Your task to perform on an android device: Go to Yahoo.com Image 0: 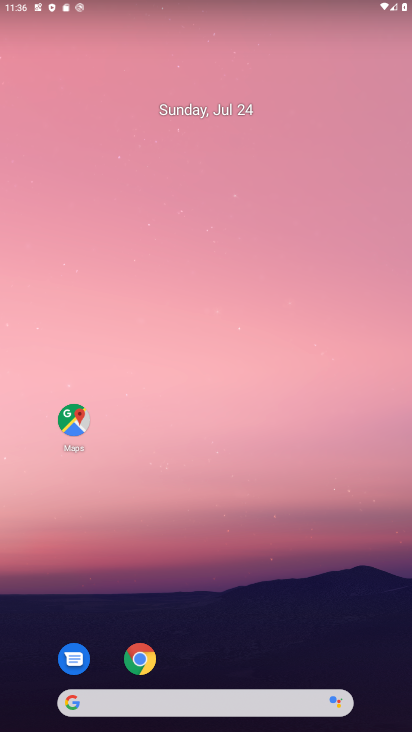
Step 0: click (121, 701)
Your task to perform on an android device: Go to Yahoo.com Image 1: 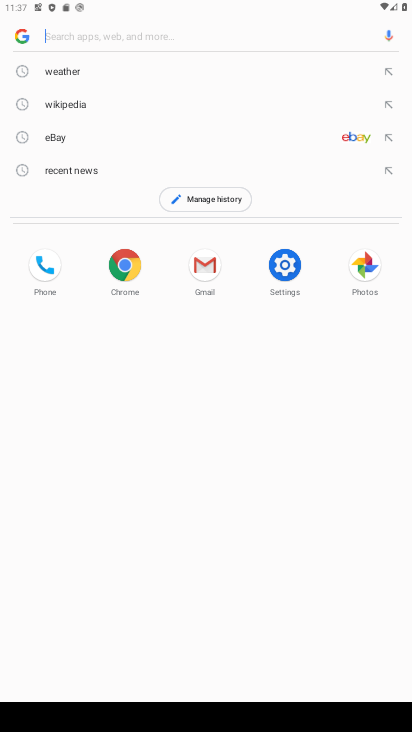
Step 1: type " Yahoo.com"
Your task to perform on an android device: Go to Yahoo.com Image 2: 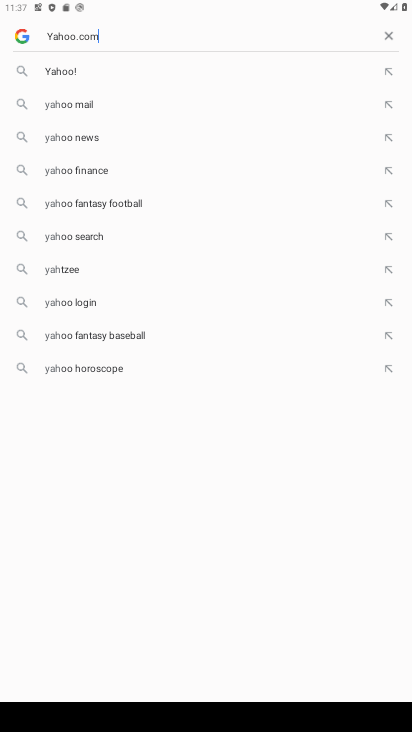
Step 2: type ""
Your task to perform on an android device: Go to Yahoo.com Image 3: 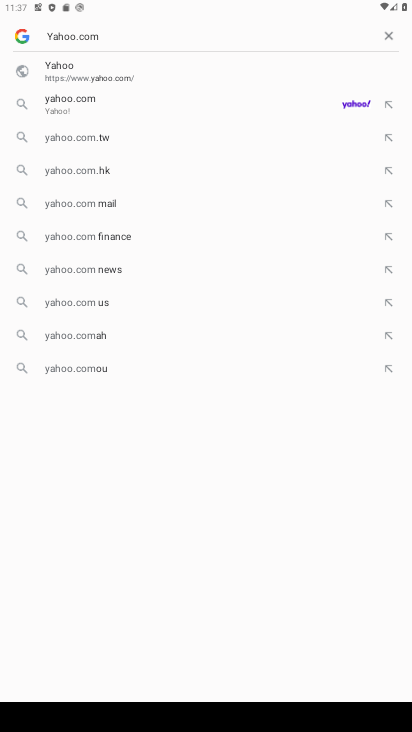
Step 3: click (57, 69)
Your task to perform on an android device: Go to Yahoo.com Image 4: 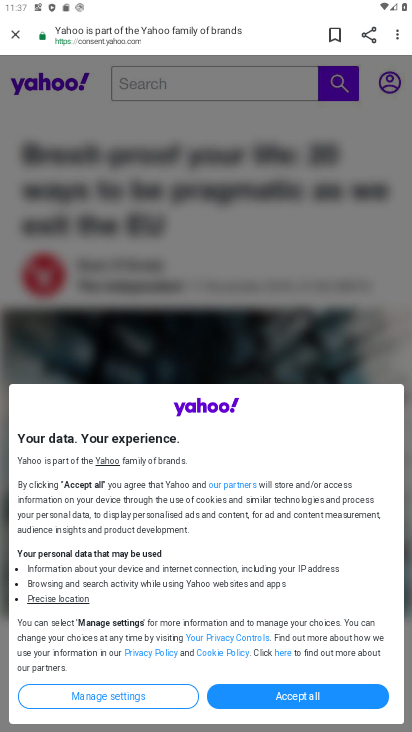
Step 4: task complete